Your task to perform on an android device: Search for Italian restaurants on Maps Image 0: 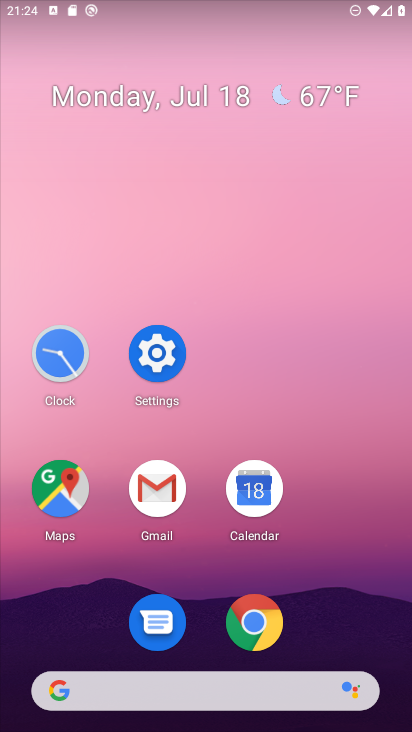
Step 0: click (64, 498)
Your task to perform on an android device: Search for Italian restaurants on Maps Image 1: 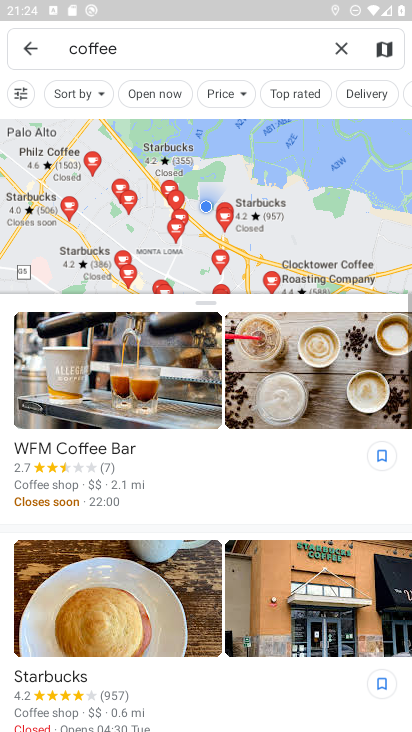
Step 1: click (334, 48)
Your task to perform on an android device: Search for Italian restaurants on Maps Image 2: 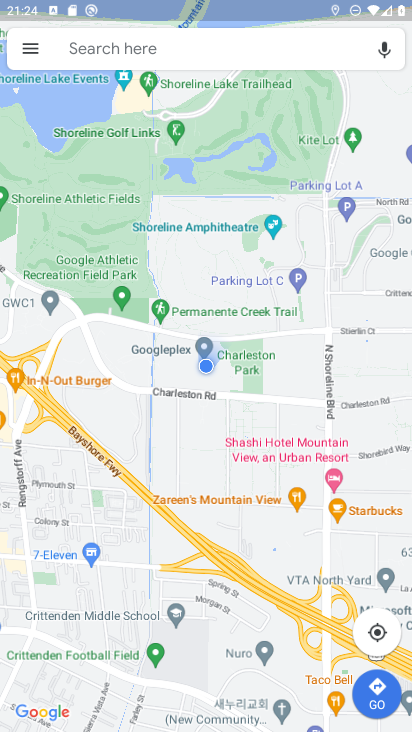
Step 2: click (95, 47)
Your task to perform on an android device: Search for Italian restaurants on Maps Image 3: 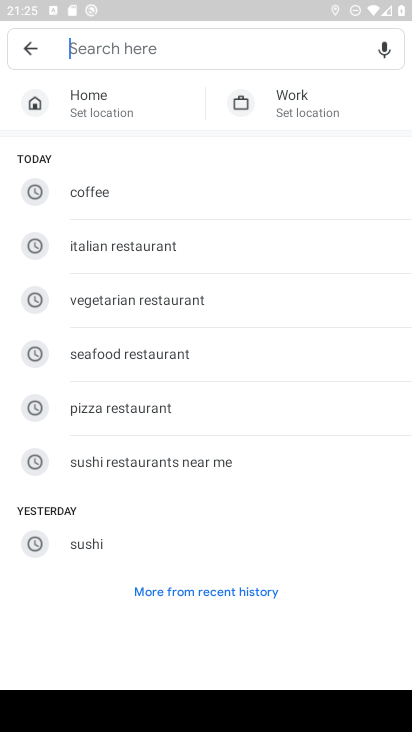
Step 3: type "Italian restaurants"
Your task to perform on an android device: Search for Italian restaurants on Maps Image 4: 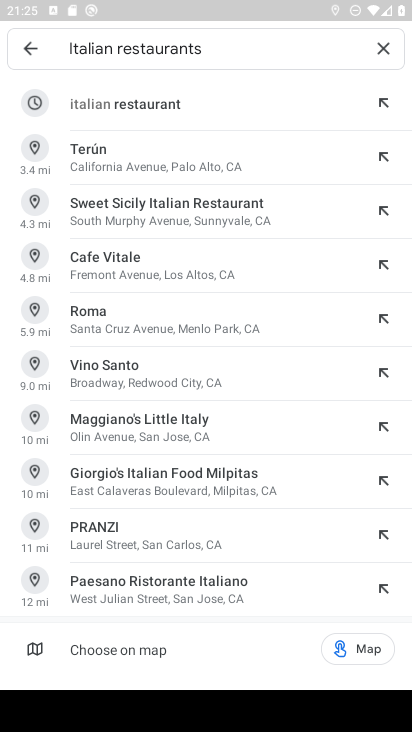
Step 4: click (152, 109)
Your task to perform on an android device: Search for Italian restaurants on Maps Image 5: 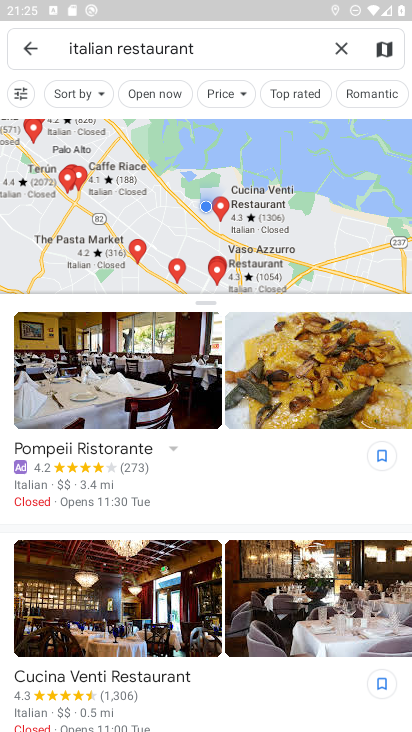
Step 5: task complete